Your task to perform on an android device: Show me productivity apps on the Play Store Image 0: 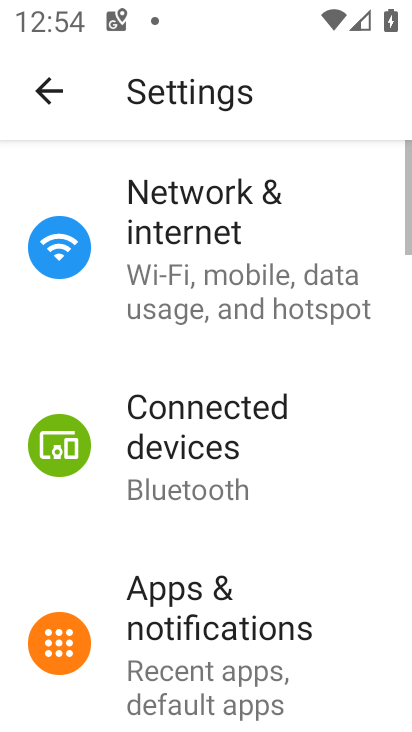
Step 0: press back button
Your task to perform on an android device: Show me productivity apps on the Play Store Image 1: 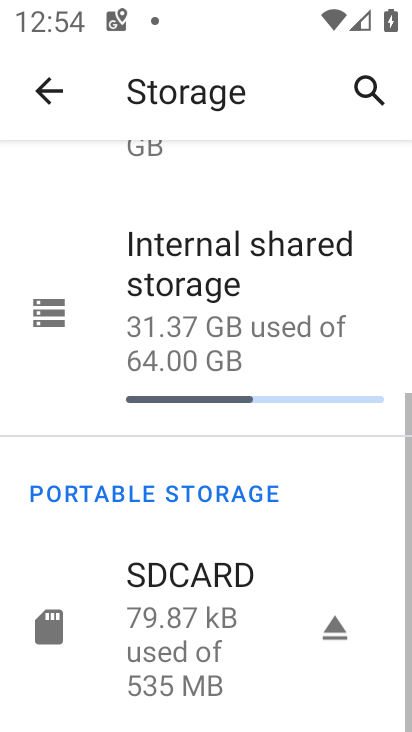
Step 1: press back button
Your task to perform on an android device: Show me productivity apps on the Play Store Image 2: 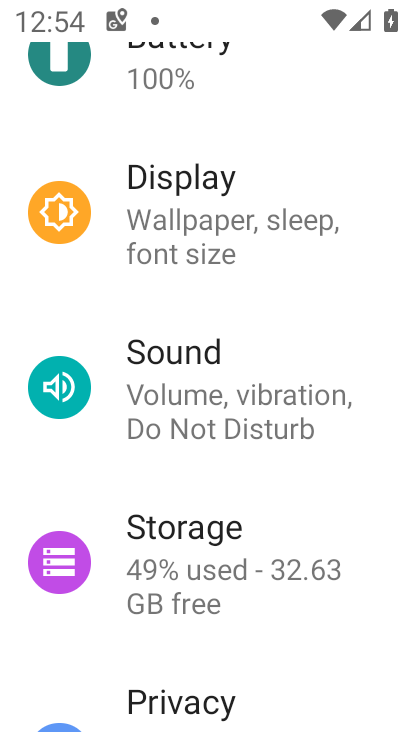
Step 2: press back button
Your task to perform on an android device: Show me productivity apps on the Play Store Image 3: 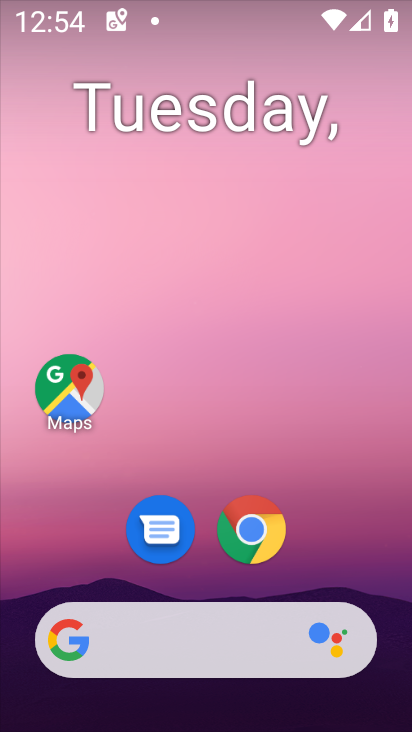
Step 3: drag from (191, 543) to (293, 36)
Your task to perform on an android device: Show me productivity apps on the Play Store Image 4: 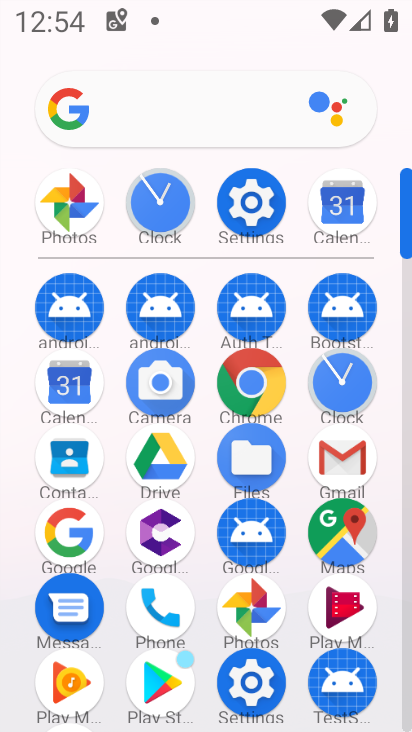
Step 4: click (154, 677)
Your task to perform on an android device: Show me productivity apps on the Play Store Image 5: 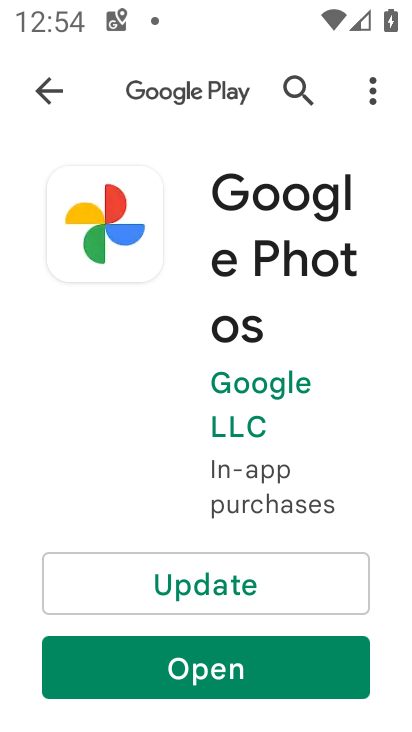
Step 5: click (47, 83)
Your task to perform on an android device: Show me productivity apps on the Play Store Image 6: 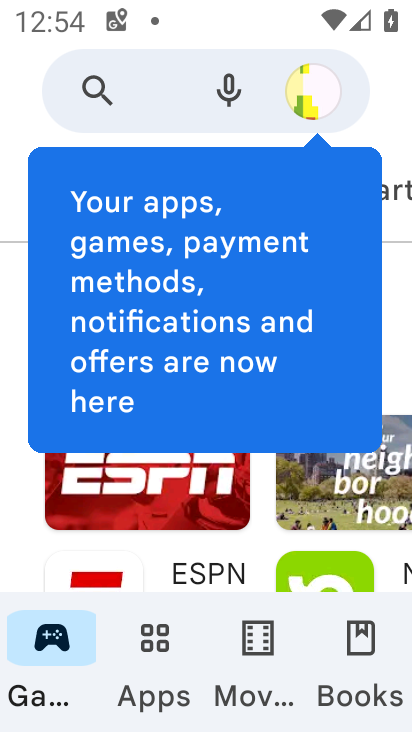
Step 6: click (139, 647)
Your task to perform on an android device: Show me productivity apps on the Play Store Image 7: 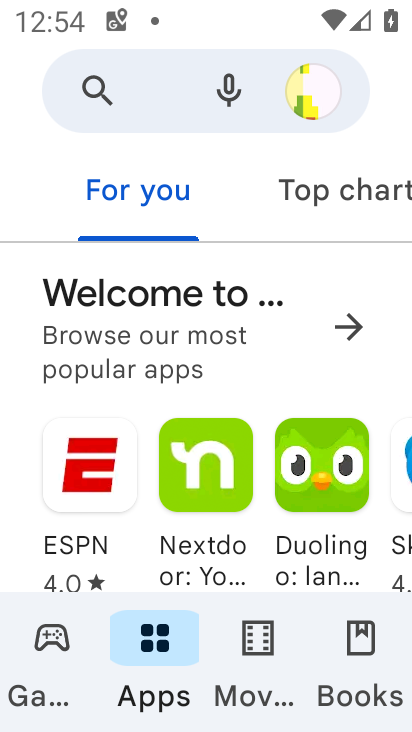
Step 7: drag from (176, 467) to (258, 6)
Your task to perform on an android device: Show me productivity apps on the Play Store Image 8: 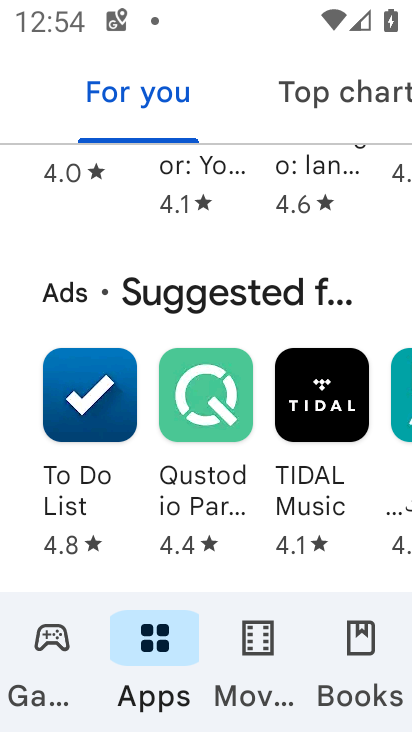
Step 8: drag from (225, 513) to (202, 50)
Your task to perform on an android device: Show me productivity apps on the Play Store Image 9: 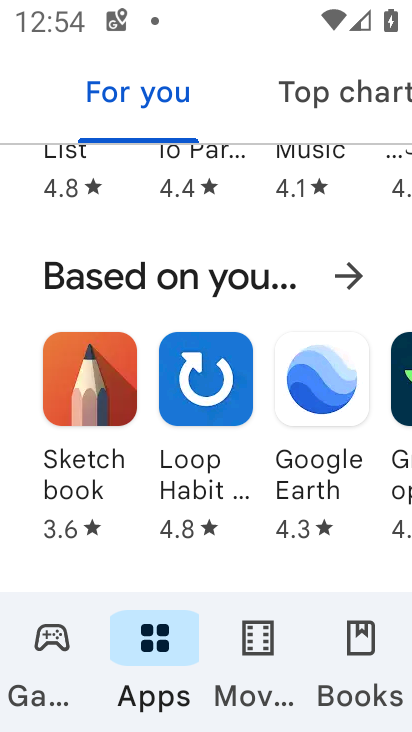
Step 9: drag from (229, 471) to (269, 68)
Your task to perform on an android device: Show me productivity apps on the Play Store Image 10: 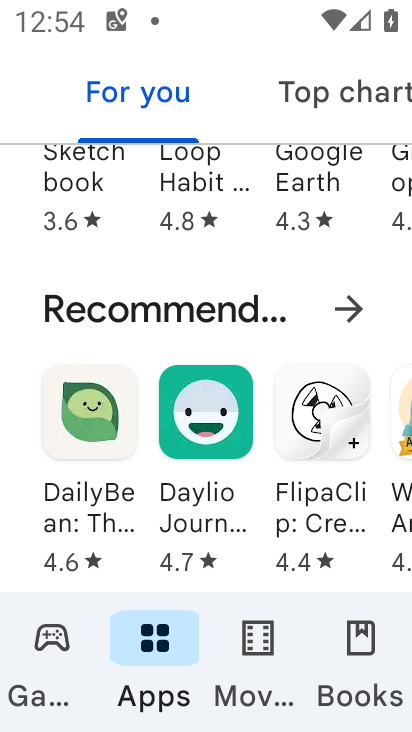
Step 10: drag from (229, 459) to (267, 88)
Your task to perform on an android device: Show me productivity apps on the Play Store Image 11: 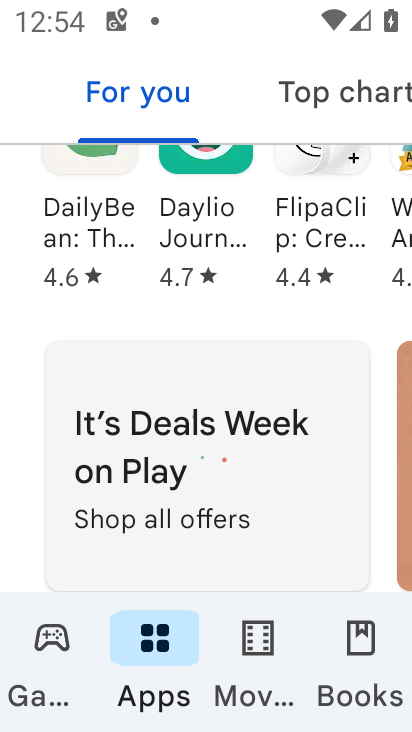
Step 11: drag from (224, 503) to (258, 120)
Your task to perform on an android device: Show me productivity apps on the Play Store Image 12: 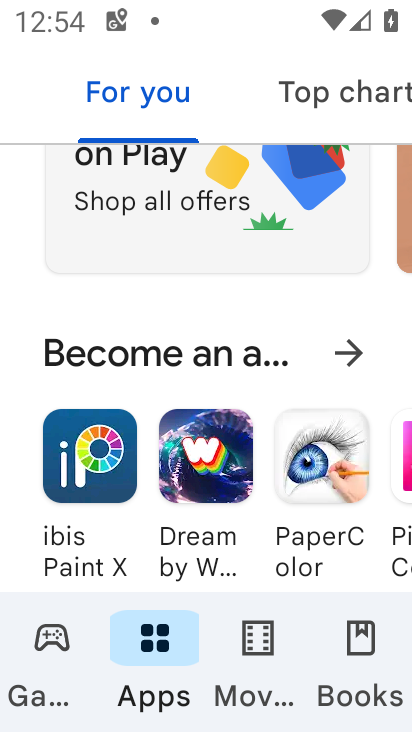
Step 12: drag from (217, 515) to (282, 36)
Your task to perform on an android device: Show me productivity apps on the Play Store Image 13: 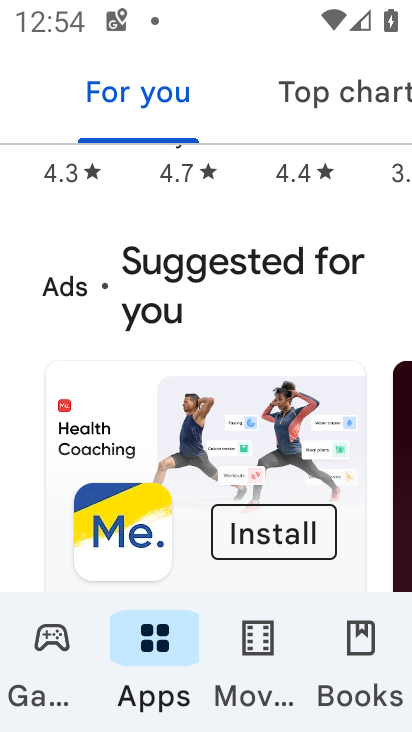
Step 13: drag from (209, 468) to (234, 26)
Your task to perform on an android device: Show me productivity apps on the Play Store Image 14: 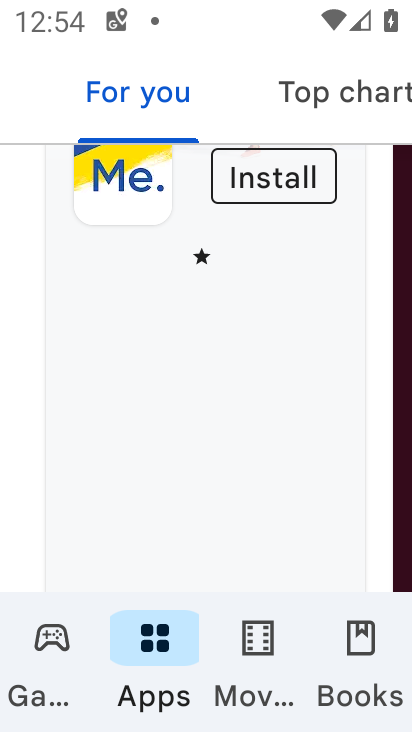
Step 14: drag from (203, 532) to (262, 0)
Your task to perform on an android device: Show me productivity apps on the Play Store Image 15: 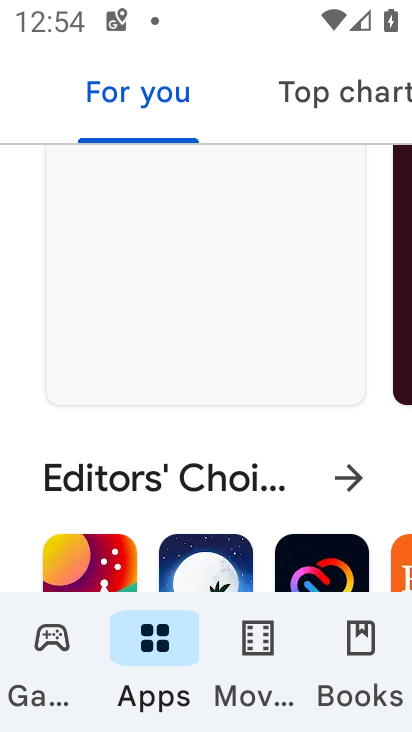
Step 15: drag from (200, 532) to (287, 24)
Your task to perform on an android device: Show me productivity apps on the Play Store Image 16: 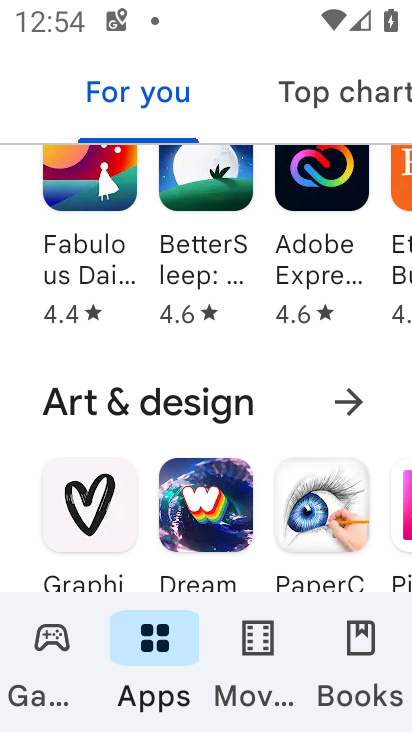
Step 16: drag from (129, 501) to (206, 13)
Your task to perform on an android device: Show me productivity apps on the Play Store Image 17: 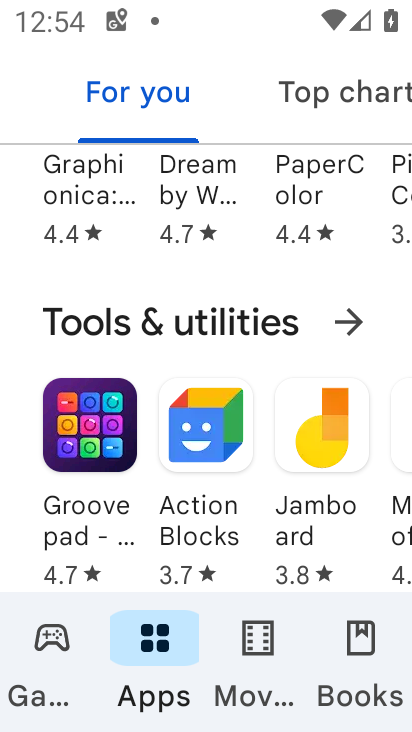
Step 17: drag from (141, 498) to (267, 27)
Your task to perform on an android device: Show me productivity apps on the Play Store Image 18: 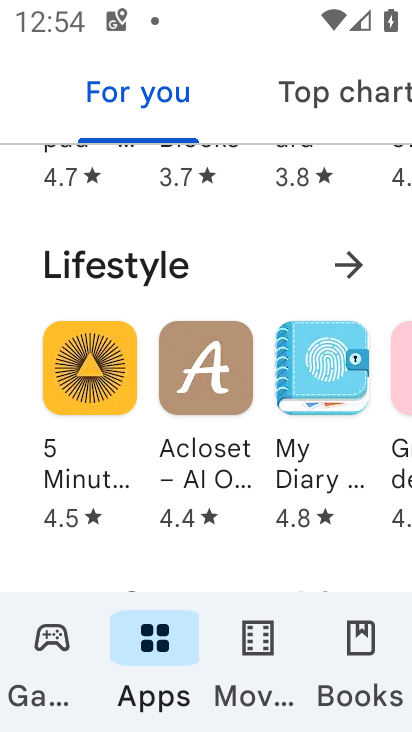
Step 18: drag from (186, 544) to (234, 75)
Your task to perform on an android device: Show me productivity apps on the Play Store Image 19: 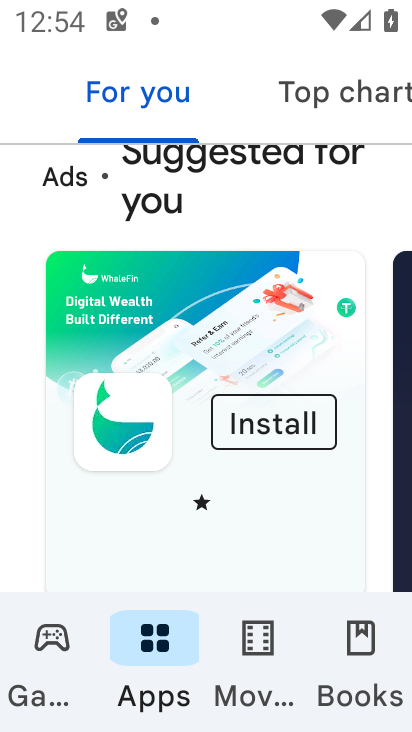
Step 19: drag from (200, 521) to (253, 44)
Your task to perform on an android device: Show me productivity apps on the Play Store Image 20: 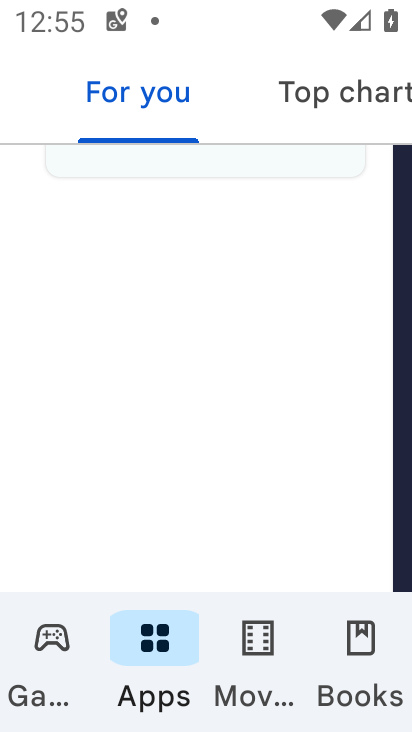
Step 20: drag from (162, 557) to (235, 33)
Your task to perform on an android device: Show me productivity apps on the Play Store Image 21: 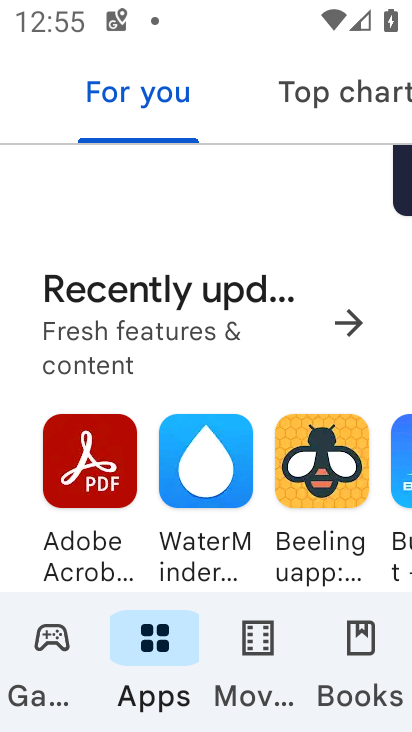
Step 21: drag from (174, 525) to (241, 36)
Your task to perform on an android device: Show me productivity apps on the Play Store Image 22: 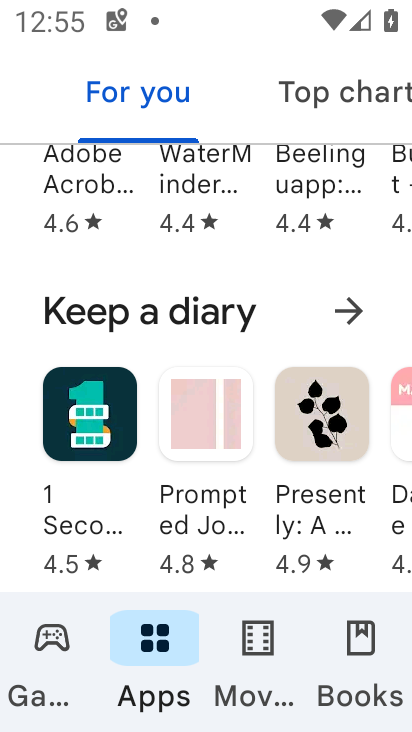
Step 22: drag from (213, 514) to (256, 26)
Your task to perform on an android device: Show me productivity apps on the Play Store Image 23: 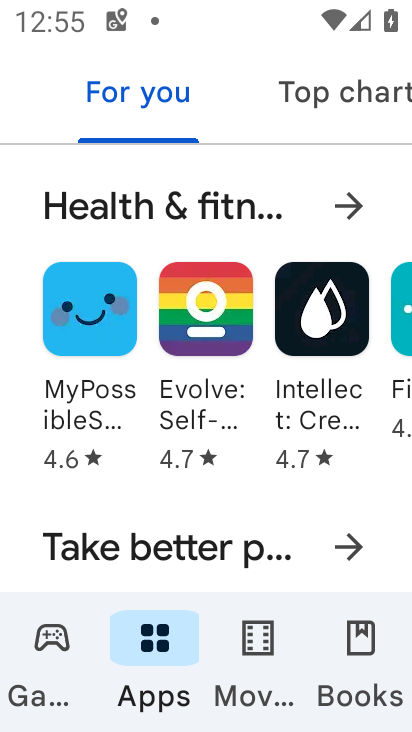
Step 23: drag from (234, 450) to (298, 0)
Your task to perform on an android device: Show me productivity apps on the Play Store Image 24: 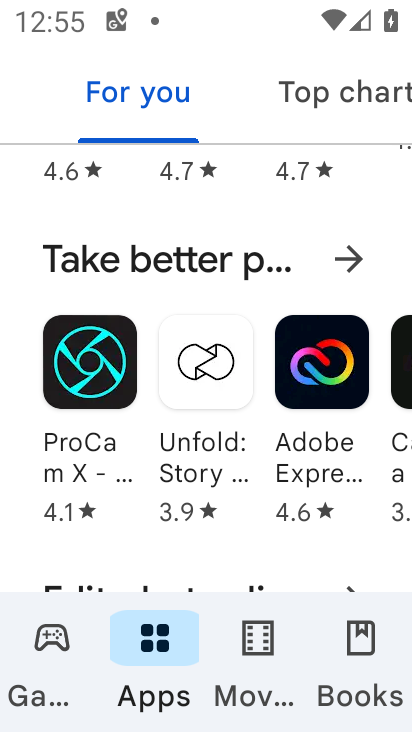
Step 24: drag from (214, 548) to (288, 23)
Your task to perform on an android device: Show me productivity apps on the Play Store Image 25: 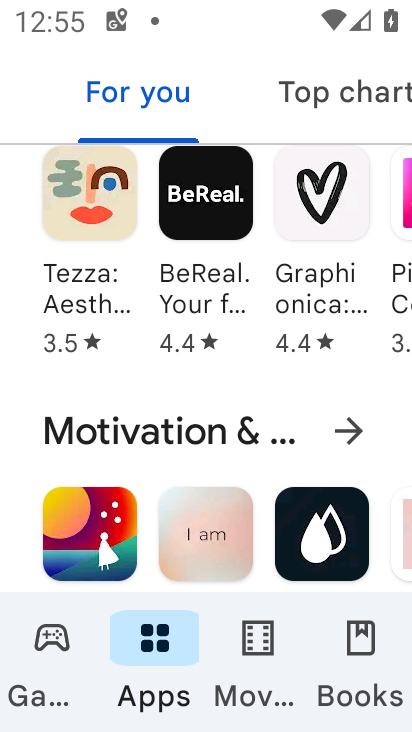
Step 25: drag from (250, 484) to (344, 12)
Your task to perform on an android device: Show me productivity apps on the Play Store Image 26: 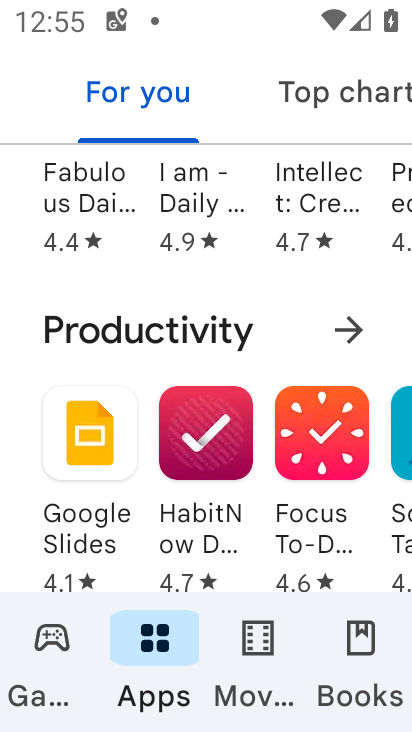
Step 26: click (339, 320)
Your task to perform on an android device: Show me productivity apps on the Play Store Image 27: 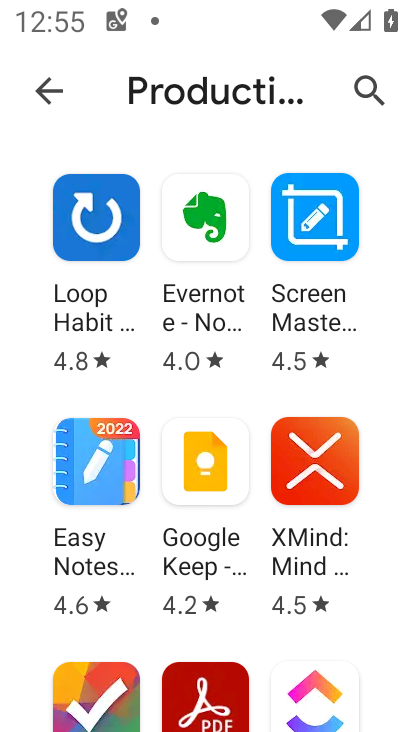
Step 27: task complete